Your task to perform on an android device: Go to notification settings Image 0: 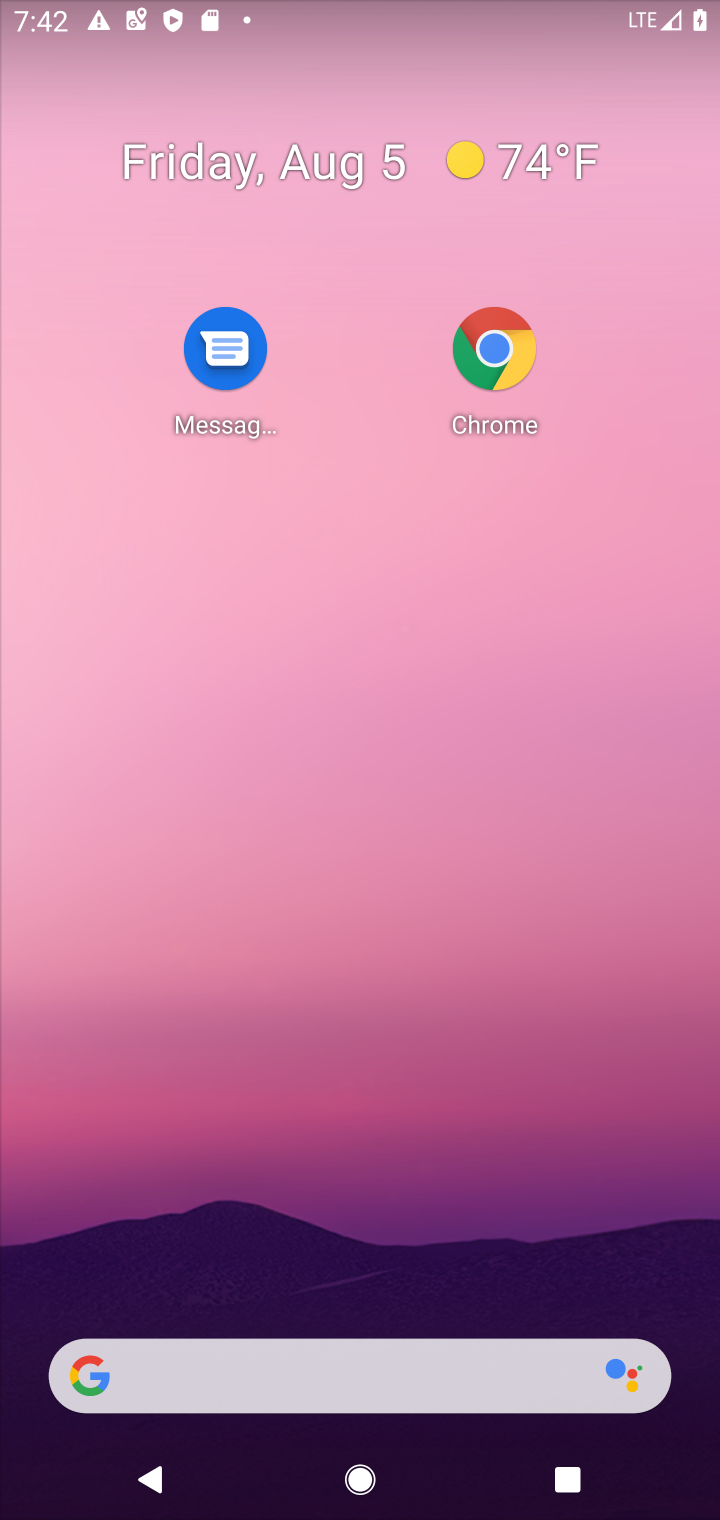
Step 0: press home button
Your task to perform on an android device: Go to notification settings Image 1: 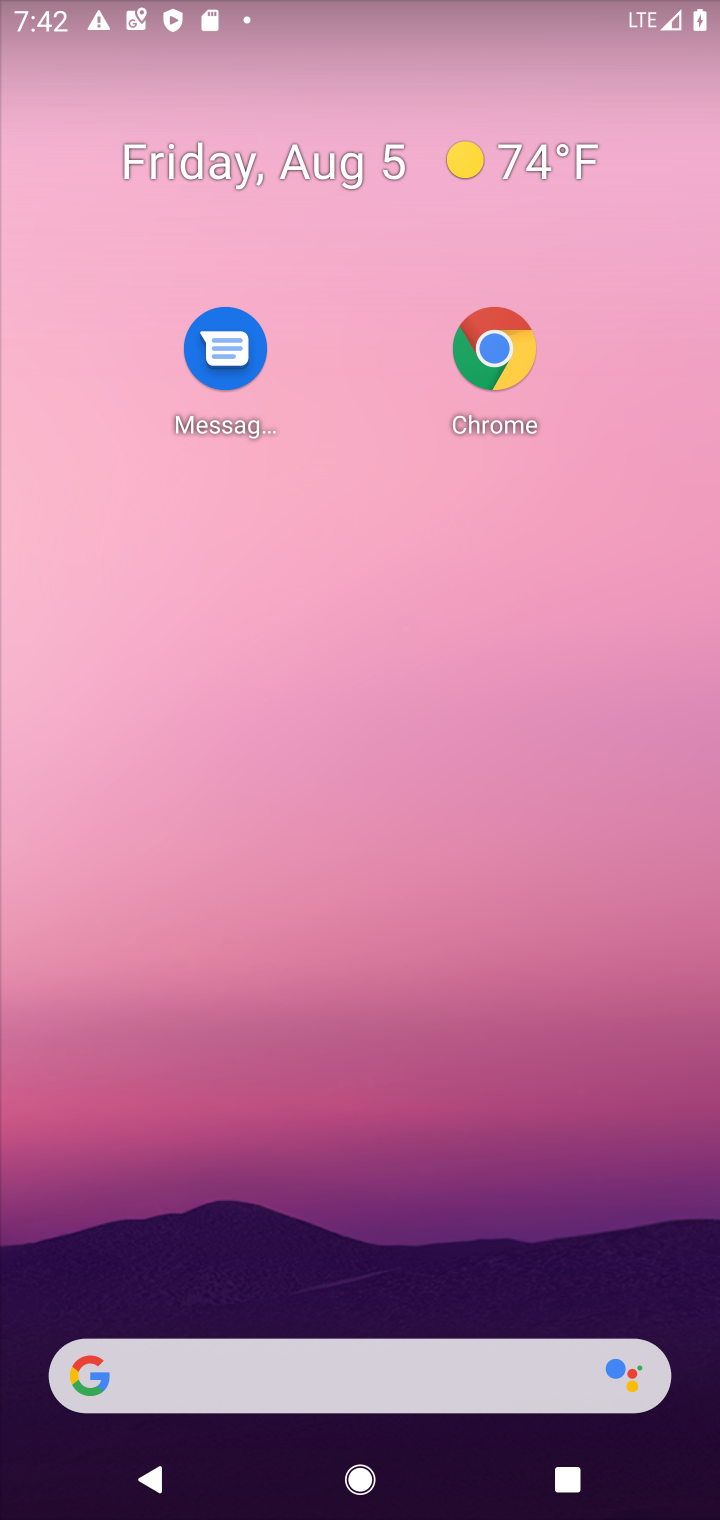
Step 1: drag from (491, 1409) to (357, 418)
Your task to perform on an android device: Go to notification settings Image 2: 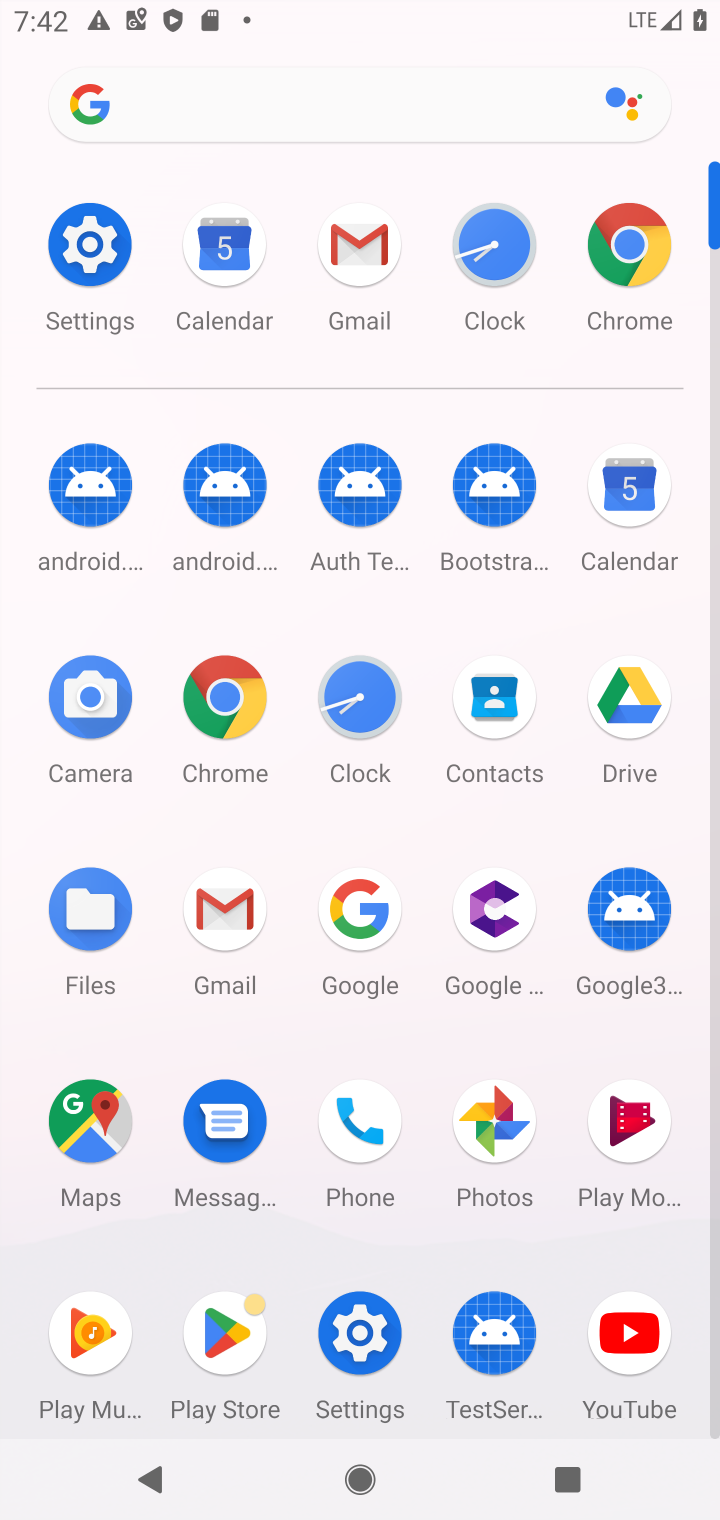
Step 2: click (110, 247)
Your task to perform on an android device: Go to notification settings Image 3: 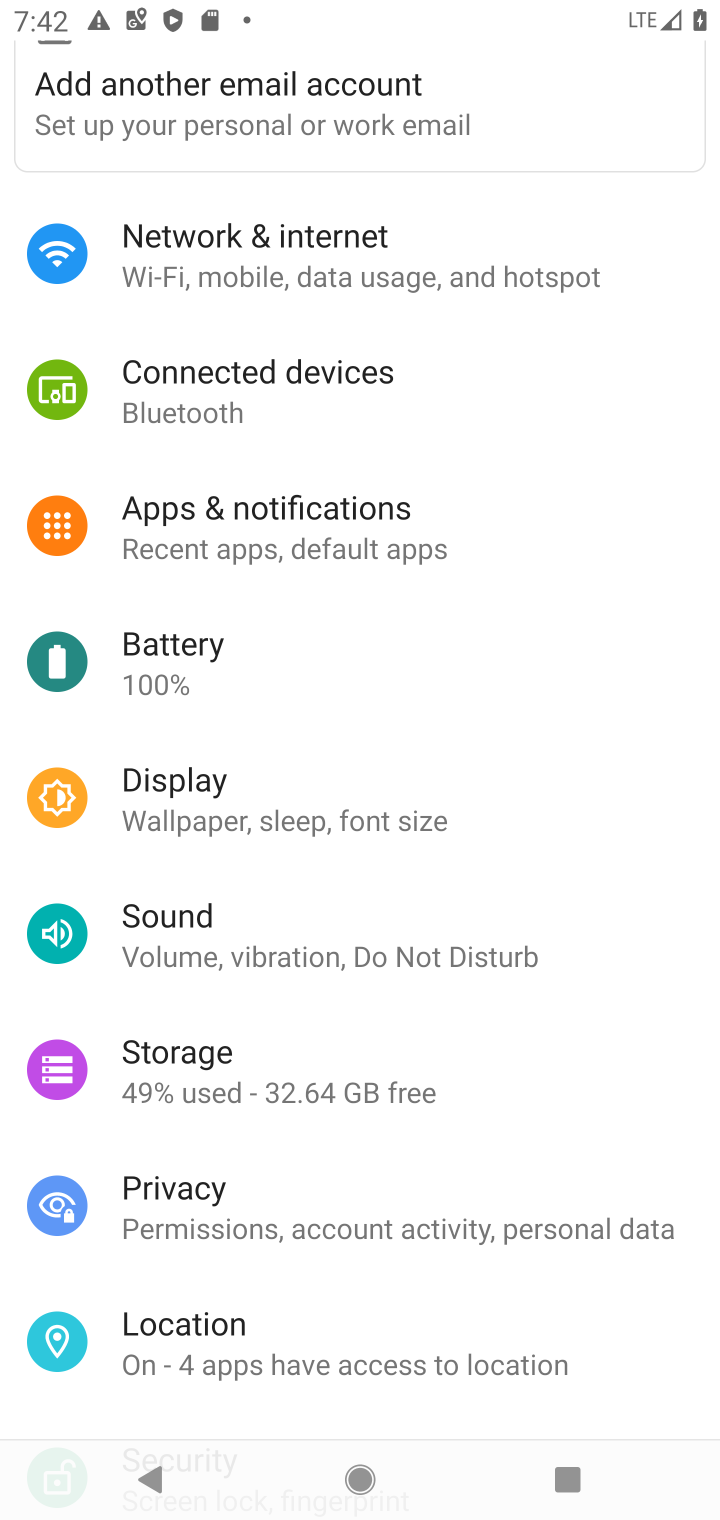
Step 3: drag from (275, 292) to (364, 472)
Your task to perform on an android device: Go to notification settings Image 4: 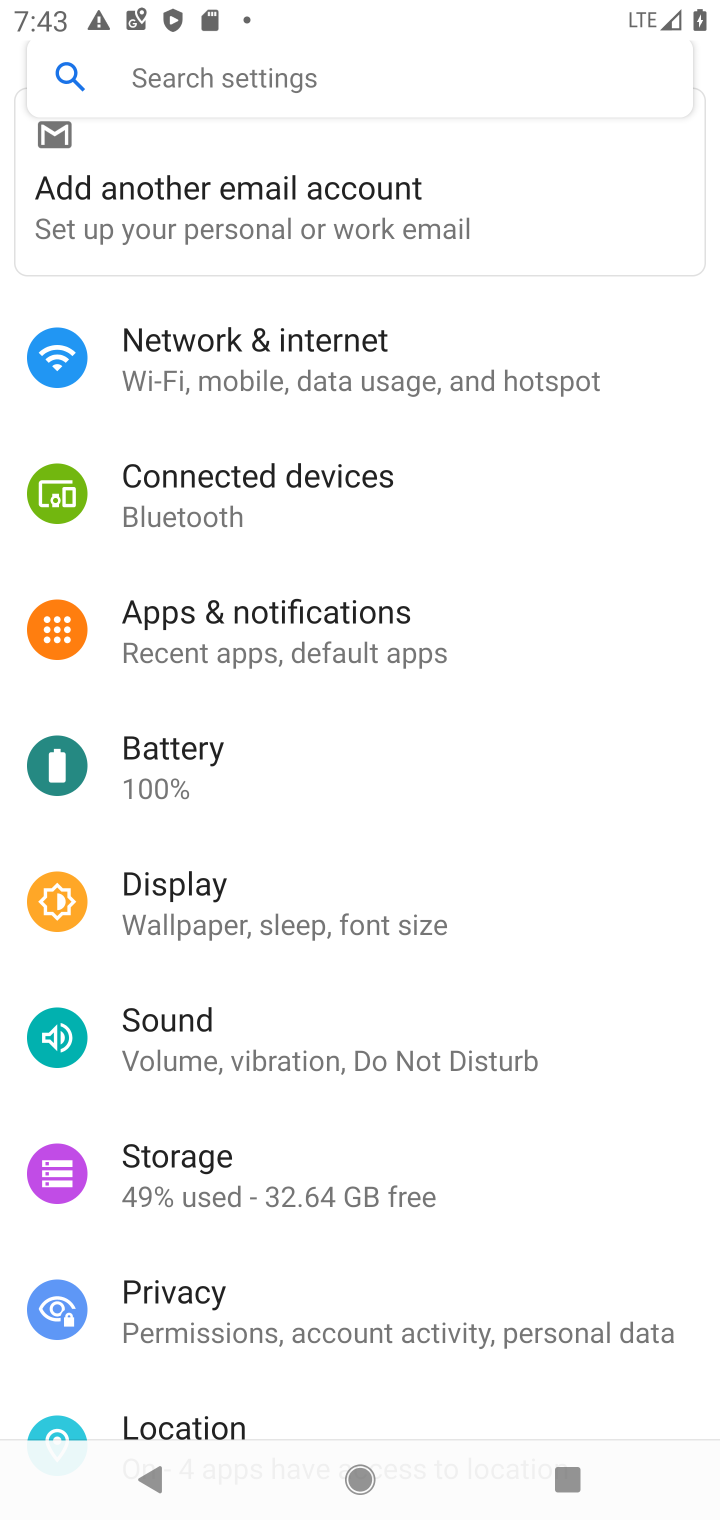
Step 4: click (241, 83)
Your task to perform on an android device: Go to notification settings Image 5: 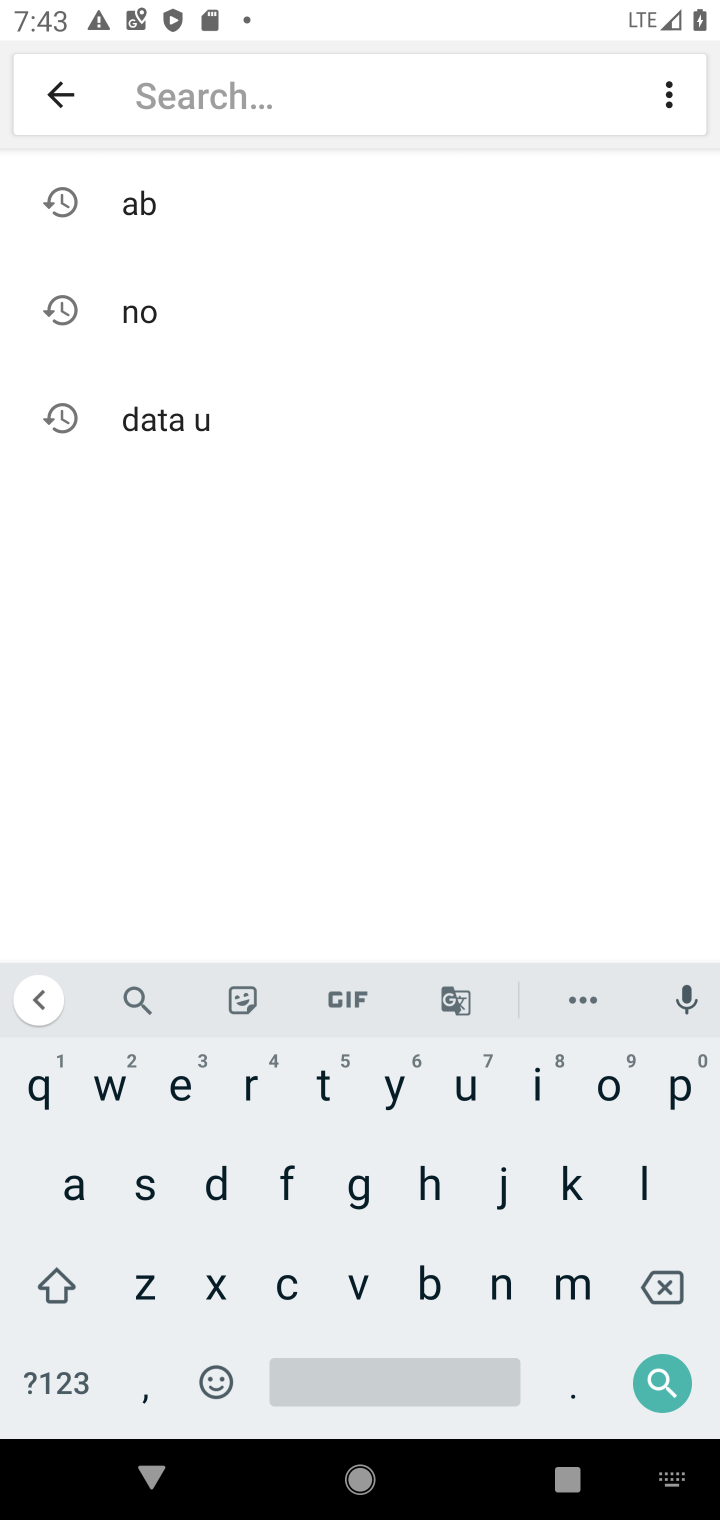
Step 5: click (216, 318)
Your task to perform on an android device: Go to notification settings Image 6: 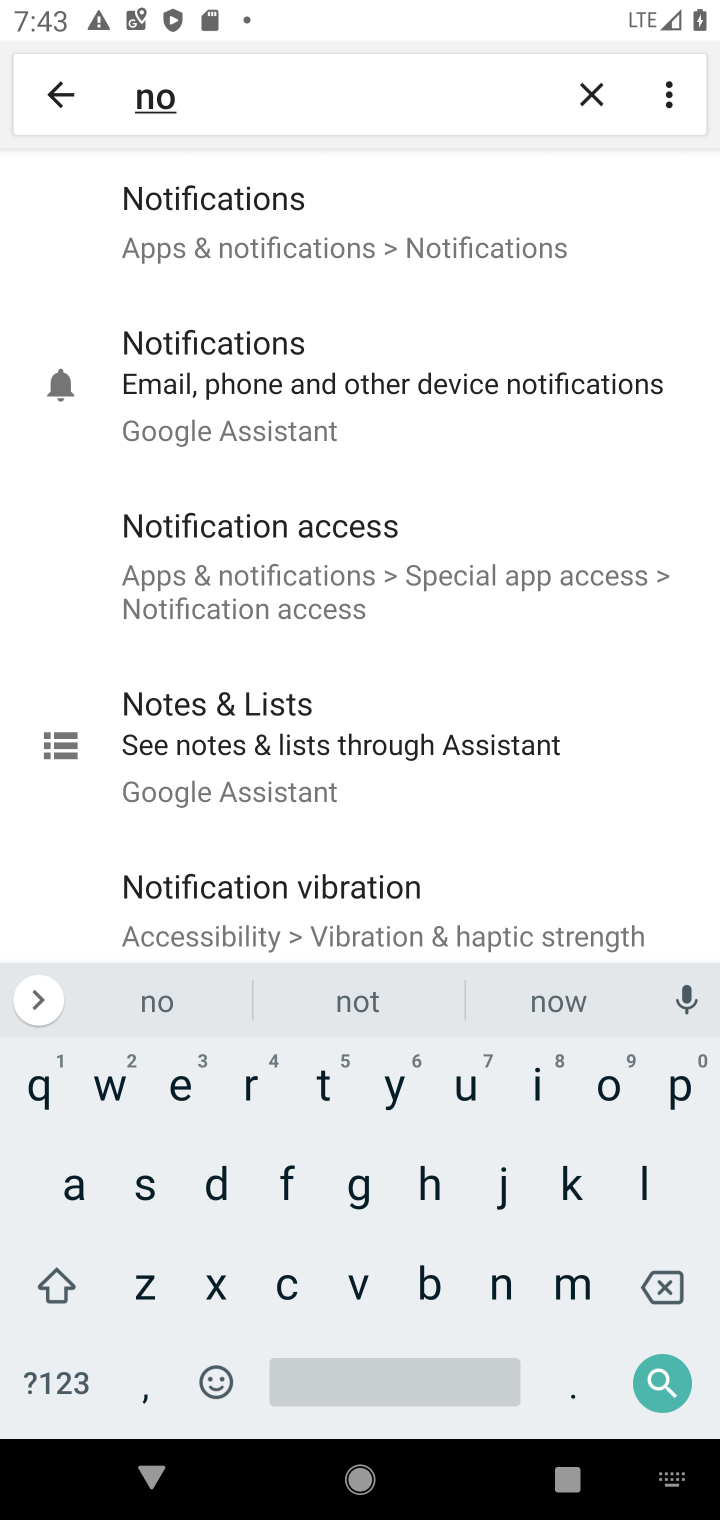
Step 6: click (265, 216)
Your task to perform on an android device: Go to notification settings Image 7: 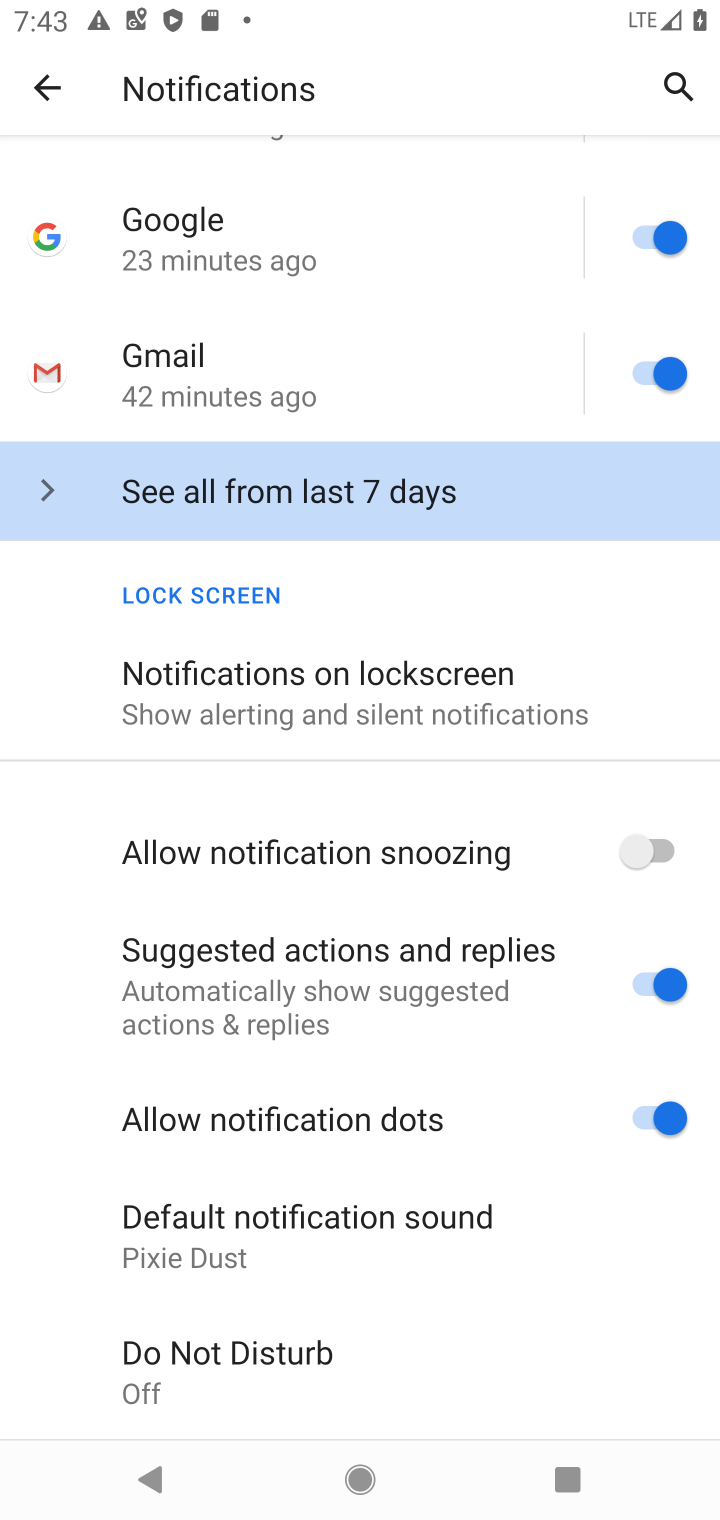
Step 7: click (311, 749)
Your task to perform on an android device: Go to notification settings Image 8: 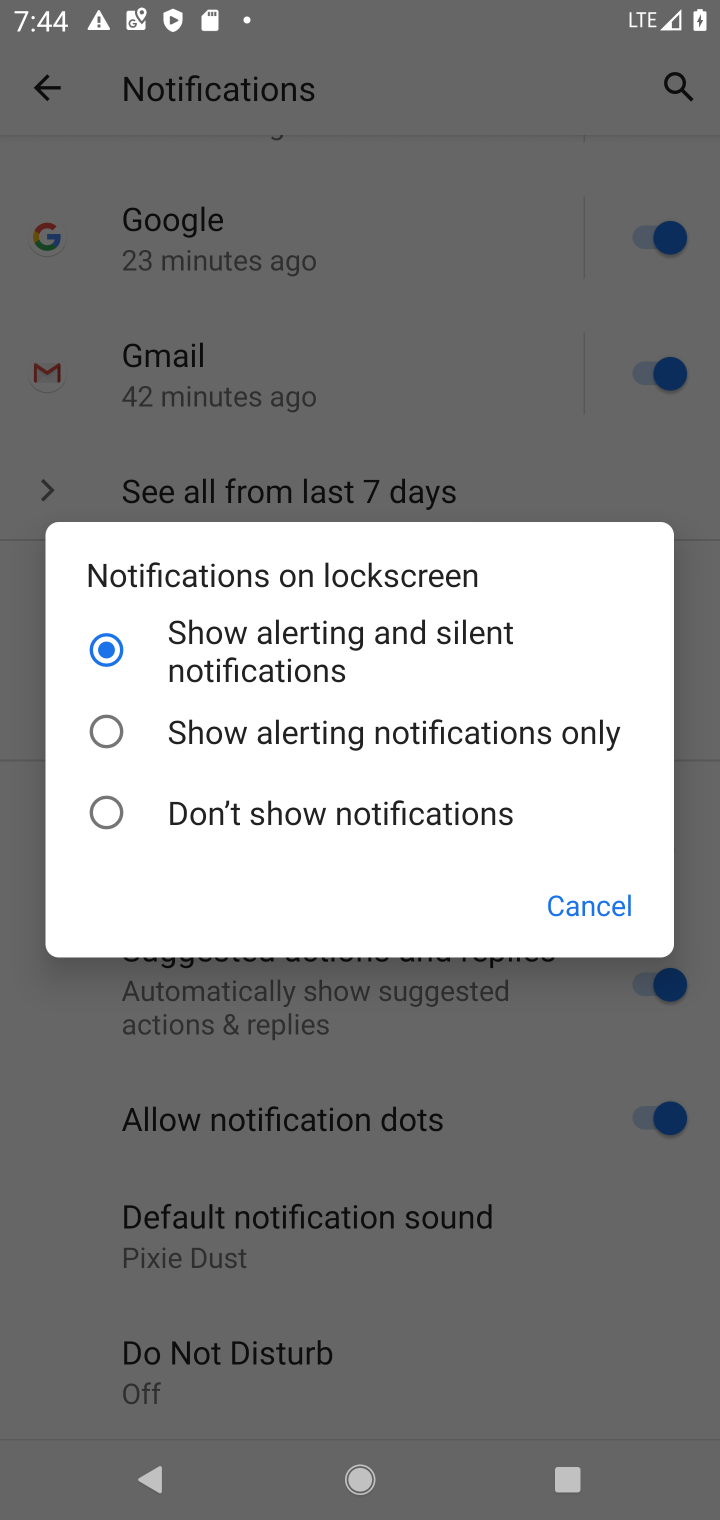
Step 8: task complete